Your task to perform on an android device: check battery use Image 0: 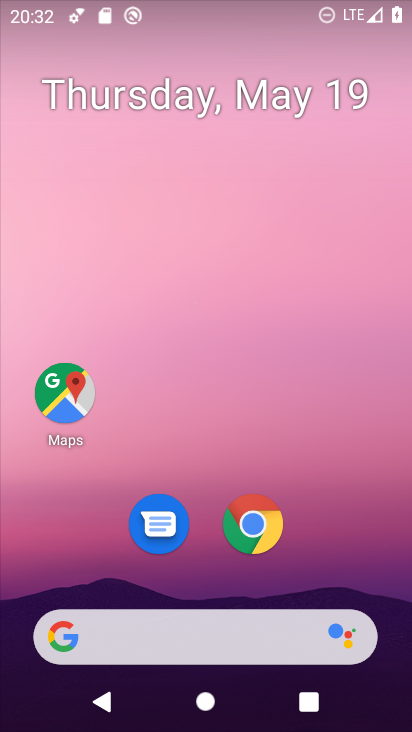
Step 0: drag from (250, 403) to (244, 46)
Your task to perform on an android device: check battery use Image 1: 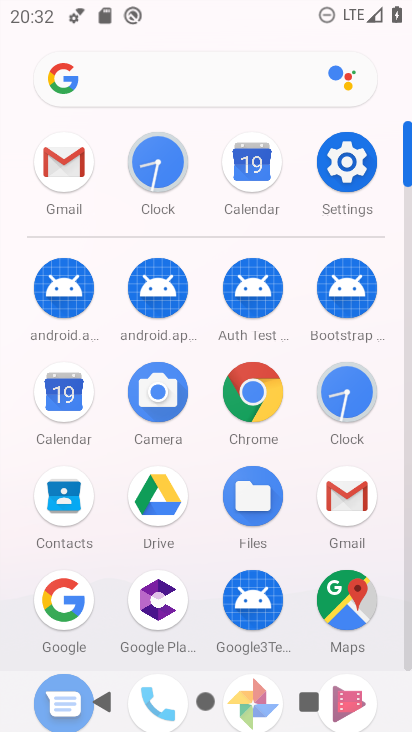
Step 1: click (345, 158)
Your task to perform on an android device: check battery use Image 2: 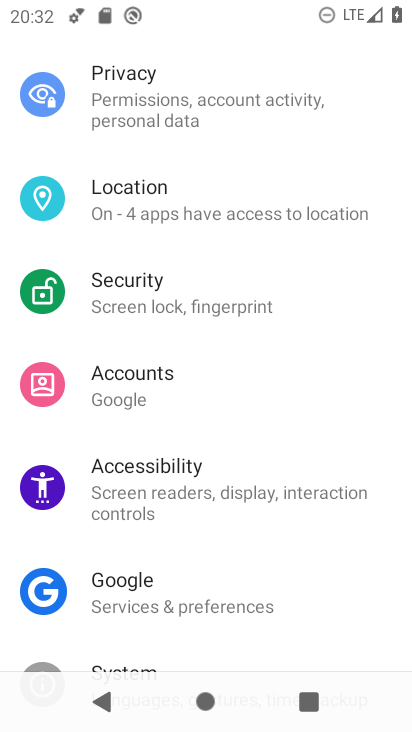
Step 2: drag from (275, 317) to (289, 688)
Your task to perform on an android device: check battery use Image 3: 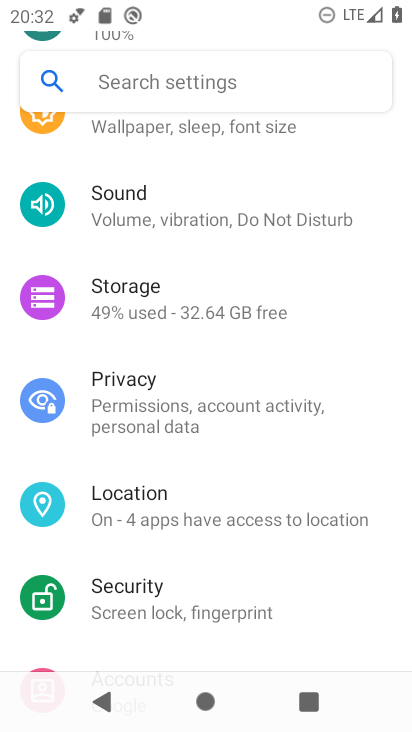
Step 3: drag from (260, 300) to (243, 617)
Your task to perform on an android device: check battery use Image 4: 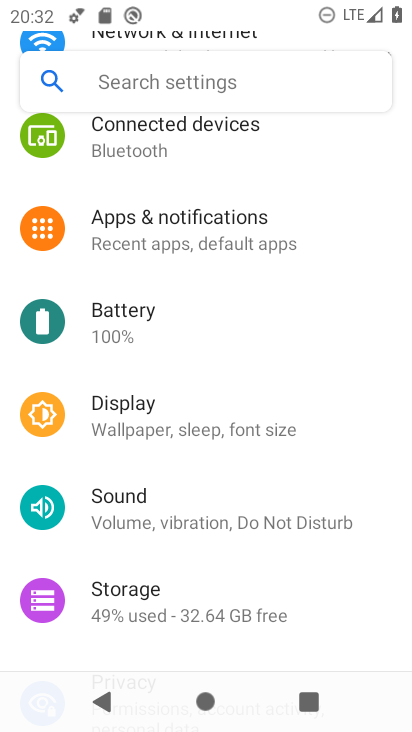
Step 4: click (208, 317)
Your task to perform on an android device: check battery use Image 5: 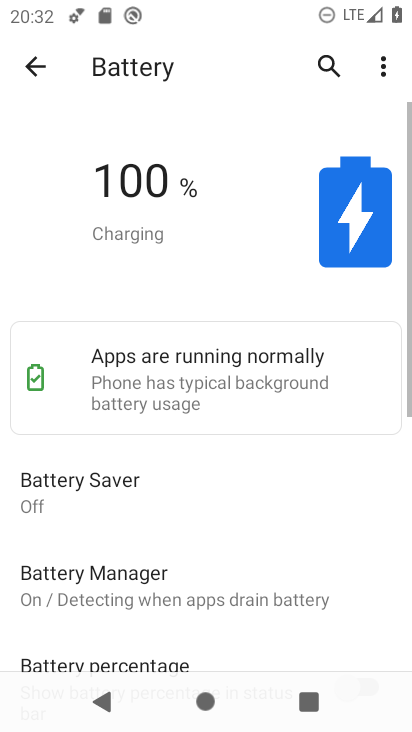
Step 5: click (380, 62)
Your task to perform on an android device: check battery use Image 6: 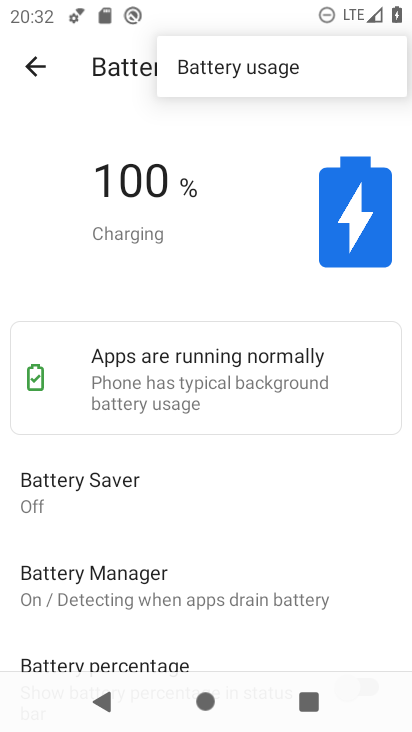
Step 6: click (289, 73)
Your task to perform on an android device: check battery use Image 7: 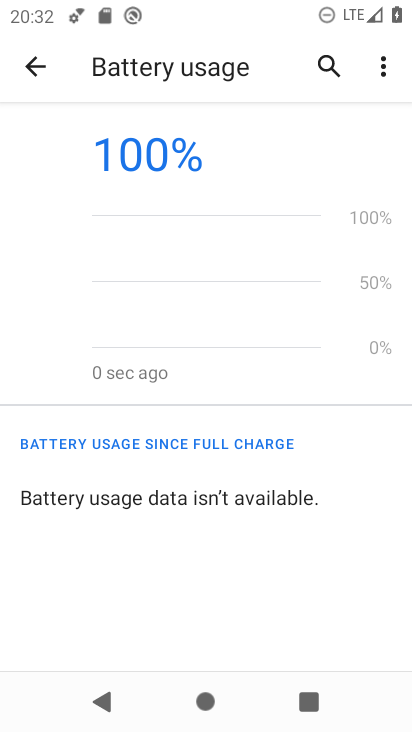
Step 7: task complete